Your task to perform on an android device: change keyboard looks Image 0: 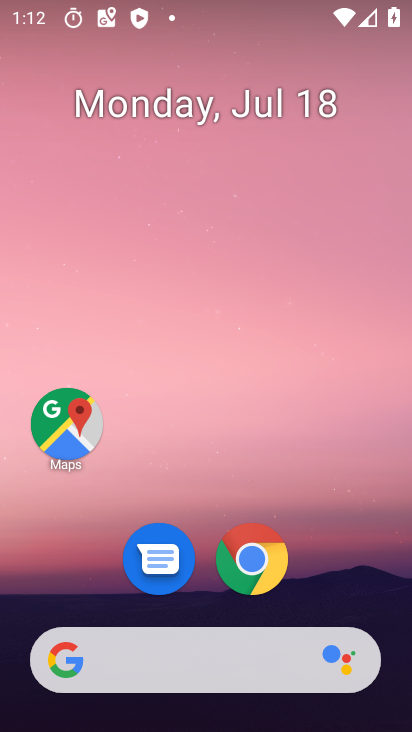
Step 0: drag from (90, 571) to (199, 56)
Your task to perform on an android device: change keyboard looks Image 1: 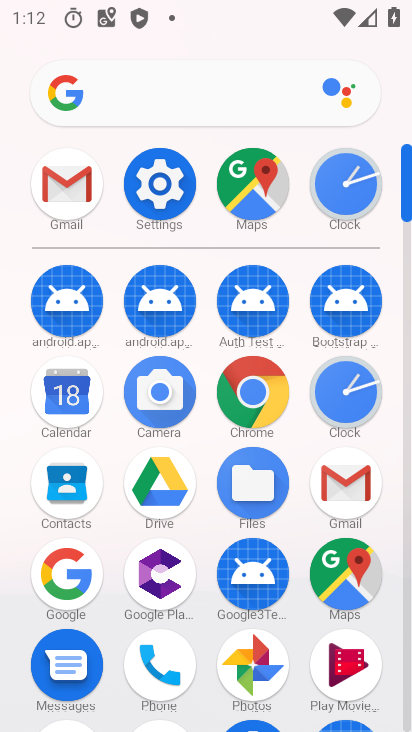
Step 1: click (164, 178)
Your task to perform on an android device: change keyboard looks Image 2: 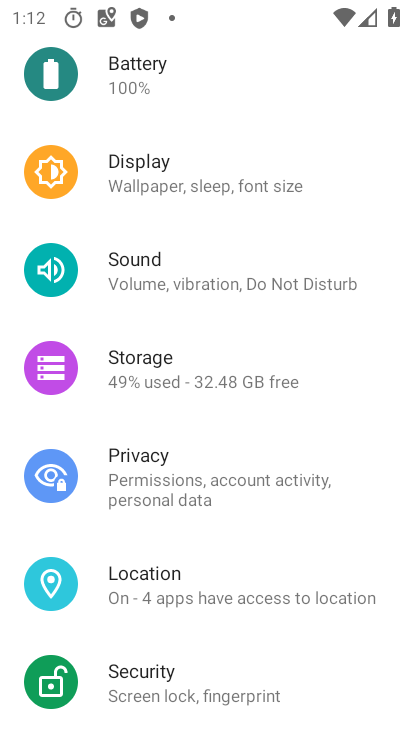
Step 2: drag from (168, 690) to (264, 20)
Your task to perform on an android device: change keyboard looks Image 3: 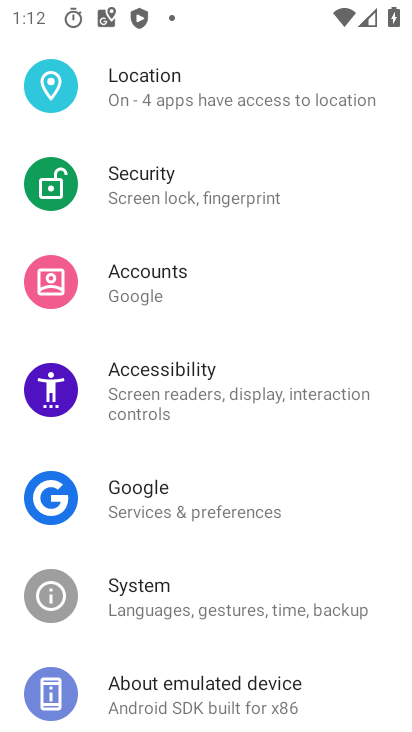
Step 3: click (166, 594)
Your task to perform on an android device: change keyboard looks Image 4: 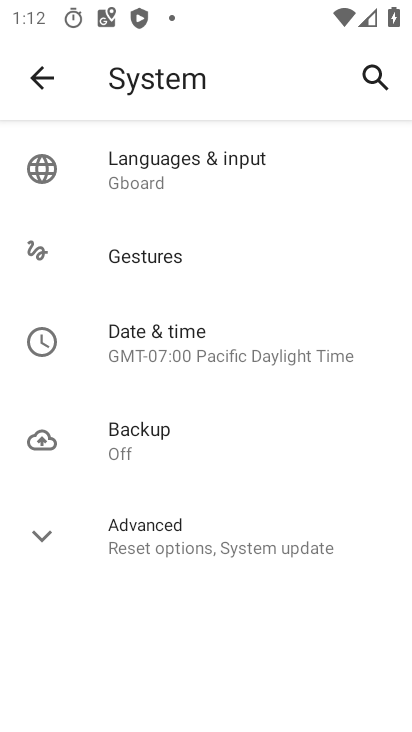
Step 4: click (175, 159)
Your task to perform on an android device: change keyboard looks Image 5: 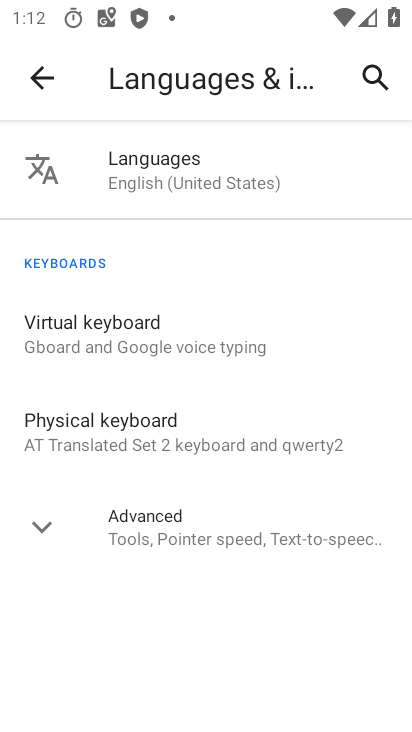
Step 5: click (98, 329)
Your task to perform on an android device: change keyboard looks Image 6: 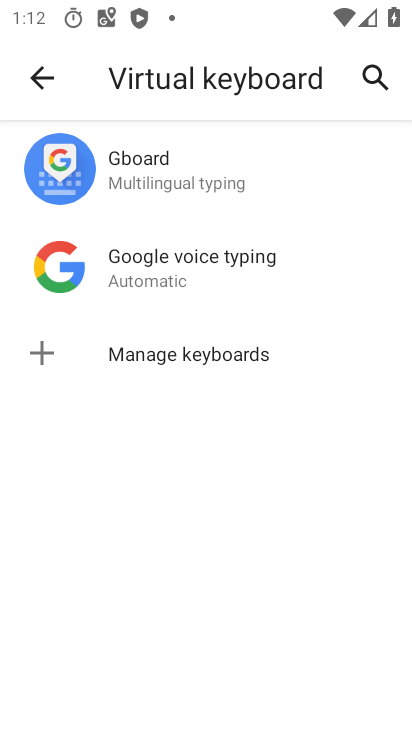
Step 6: click (156, 181)
Your task to perform on an android device: change keyboard looks Image 7: 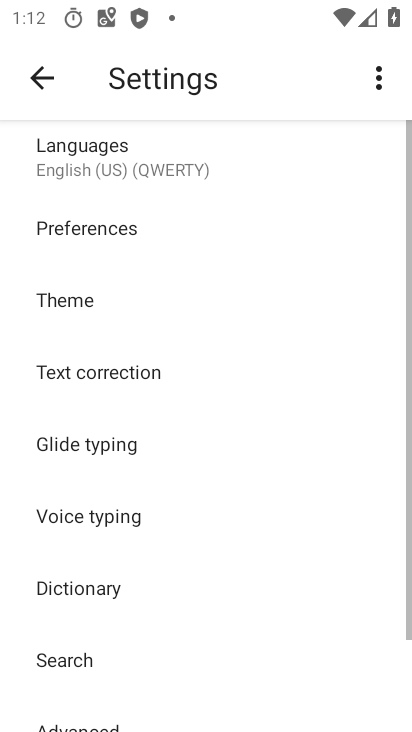
Step 7: click (103, 300)
Your task to perform on an android device: change keyboard looks Image 8: 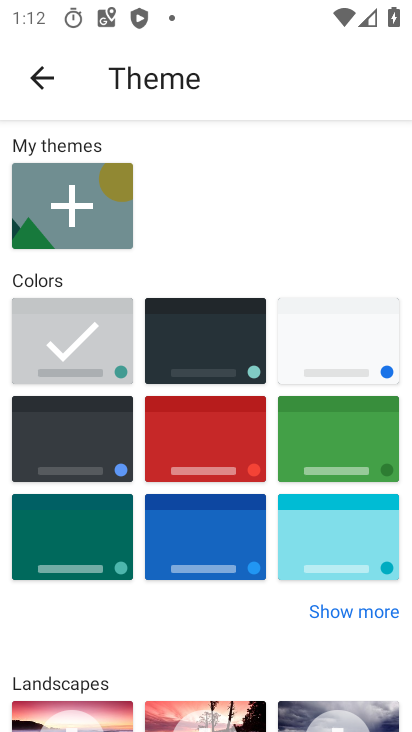
Step 8: click (185, 530)
Your task to perform on an android device: change keyboard looks Image 9: 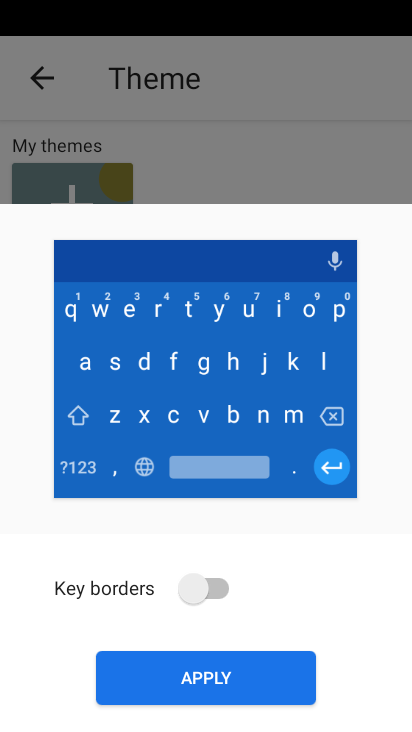
Step 9: click (195, 694)
Your task to perform on an android device: change keyboard looks Image 10: 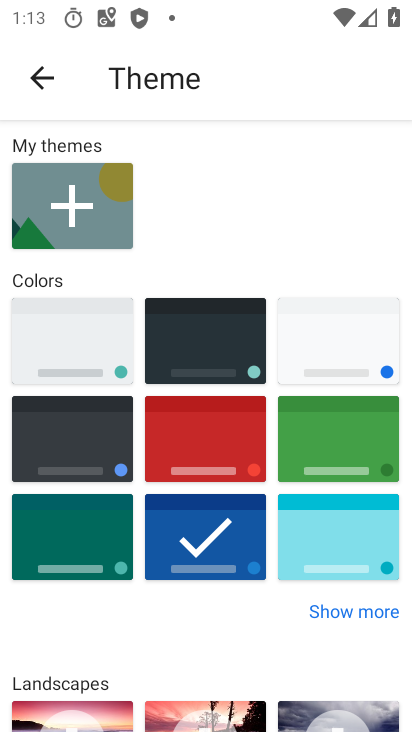
Step 10: task complete